Your task to perform on an android device: Open the phone app and click the voicemail tab. Image 0: 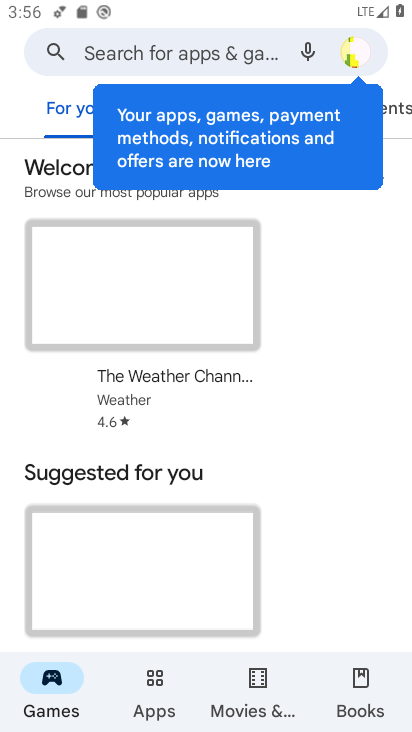
Step 0: press home button
Your task to perform on an android device: Open the phone app and click the voicemail tab. Image 1: 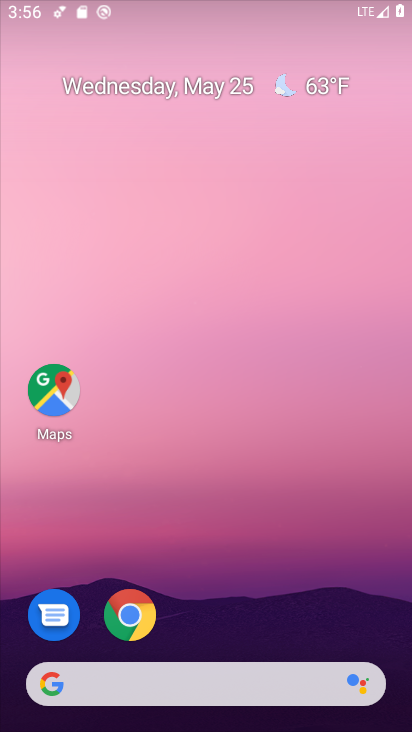
Step 1: drag from (276, 295) to (162, 9)
Your task to perform on an android device: Open the phone app and click the voicemail tab. Image 2: 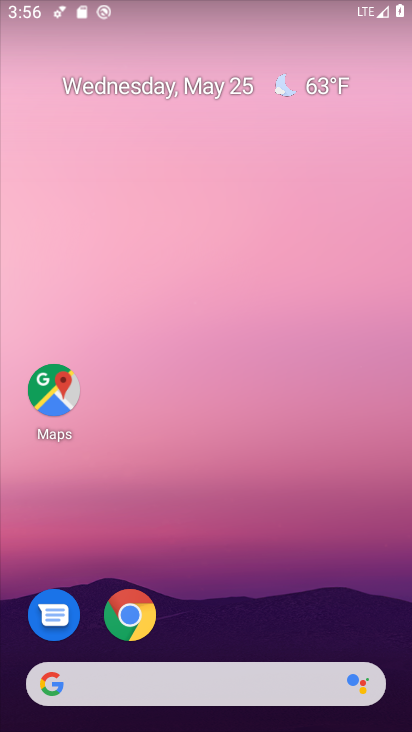
Step 2: drag from (290, 593) to (256, 73)
Your task to perform on an android device: Open the phone app and click the voicemail tab. Image 3: 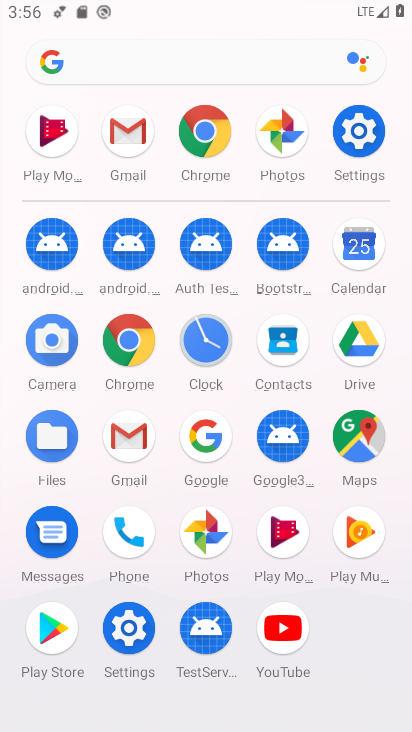
Step 3: click (116, 535)
Your task to perform on an android device: Open the phone app and click the voicemail tab. Image 4: 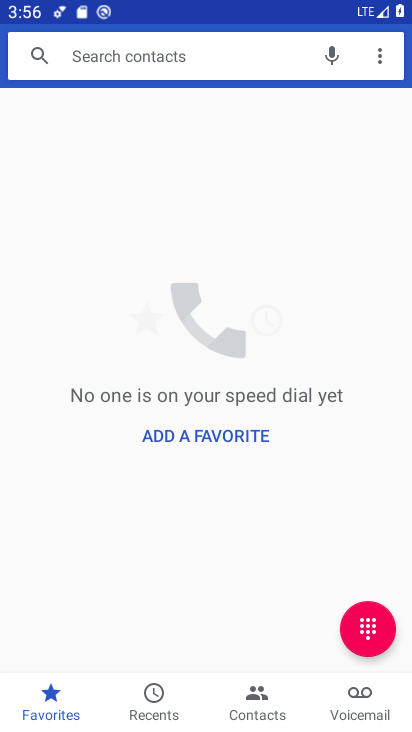
Step 4: click (370, 707)
Your task to perform on an android device: Open the phone app and click the voicemail tab. Image 5: 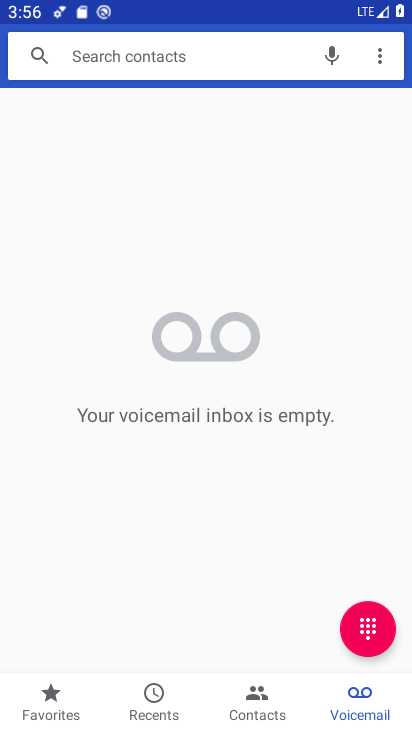
Step 5: task complete